Your task to perform on an android device: change the clock display to digital Image 0: 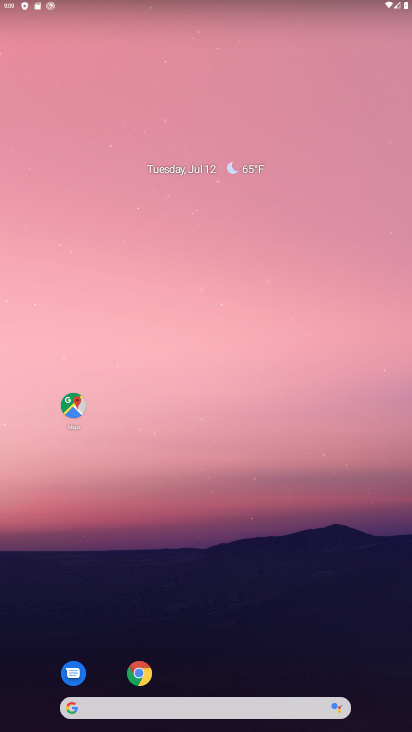
Step 0: drag from (326, 629) to (322, 72)
Your task to perform on an android device: change the clock display to digital Image 1: 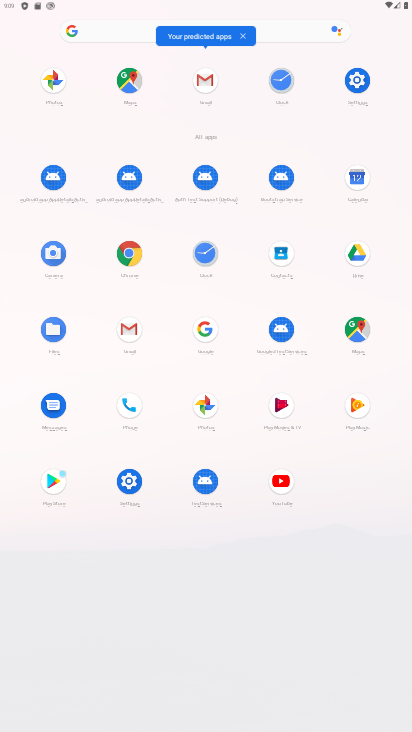
Step 1: click (203, 255)
Your task to perform on an android device: change the clock display to digital Image 2: 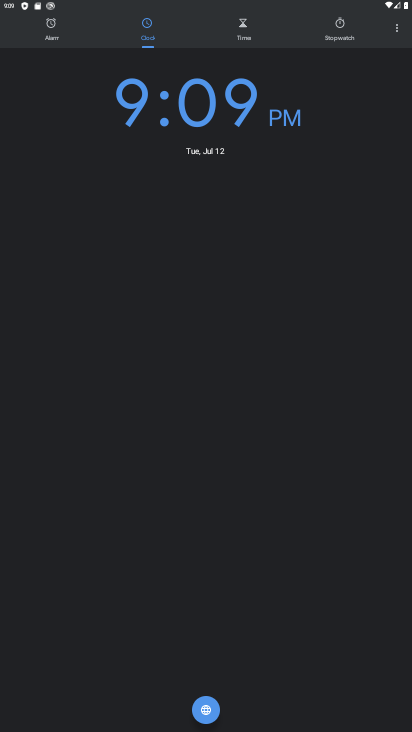
Step 2: click (397, 32)
Your task to perform on an android device: change the clock display to digital Image 3: 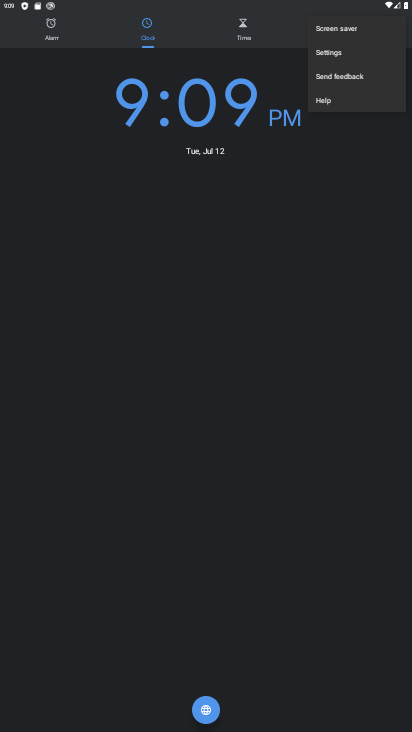
Step 3: click (355, 55)
Your task to perform on an android device: change the clock display to digital Image 4: 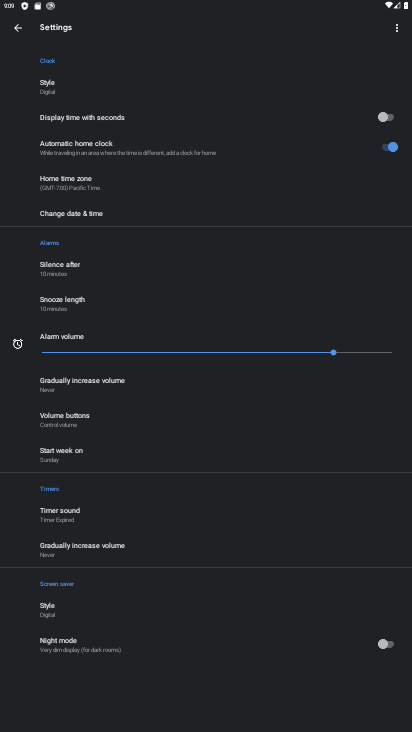
Step 4: drag from (321, 508) to (322, 347)
Your task to perform on an android device: change the clock display to digital Image 5: 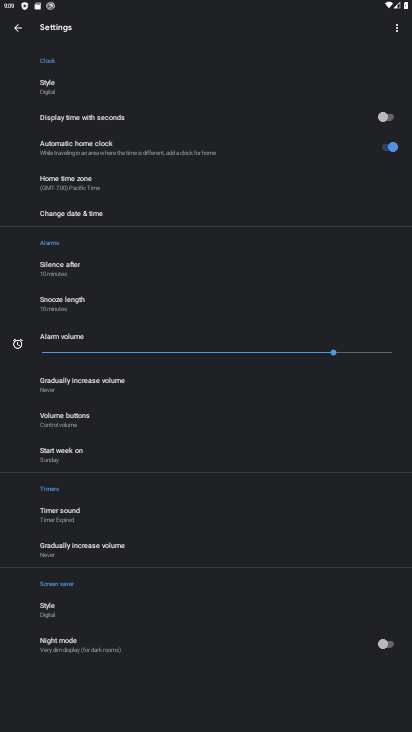
Step 5: drag from (323, 539) to (323, 501)
Your task to perform on an android device: change the clock display to digital Image 6: 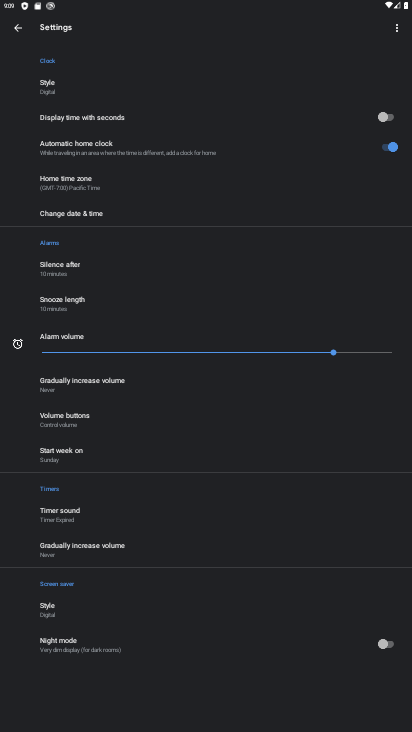
Step 6: click (64, 87)
Your task to perform on an android device: change the clock display to digital Image 7: 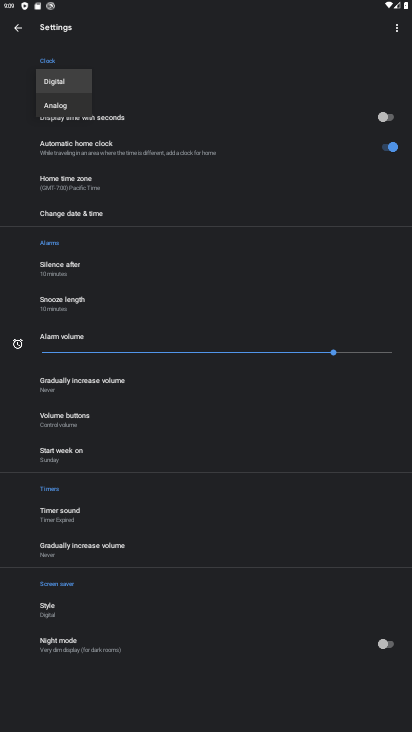
Step 7: click (63, 81)
Your task to perform on an android device: change the clock display to digital Image 8: 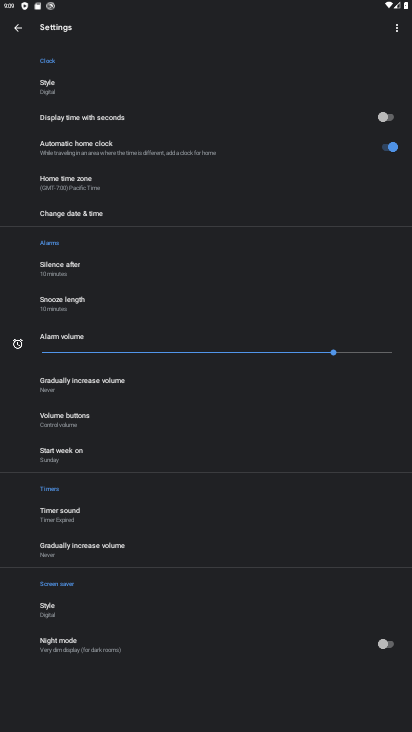
Step 8: task complete